Your task to perform on an android device: toggle data saver in the chrome app Image 0: 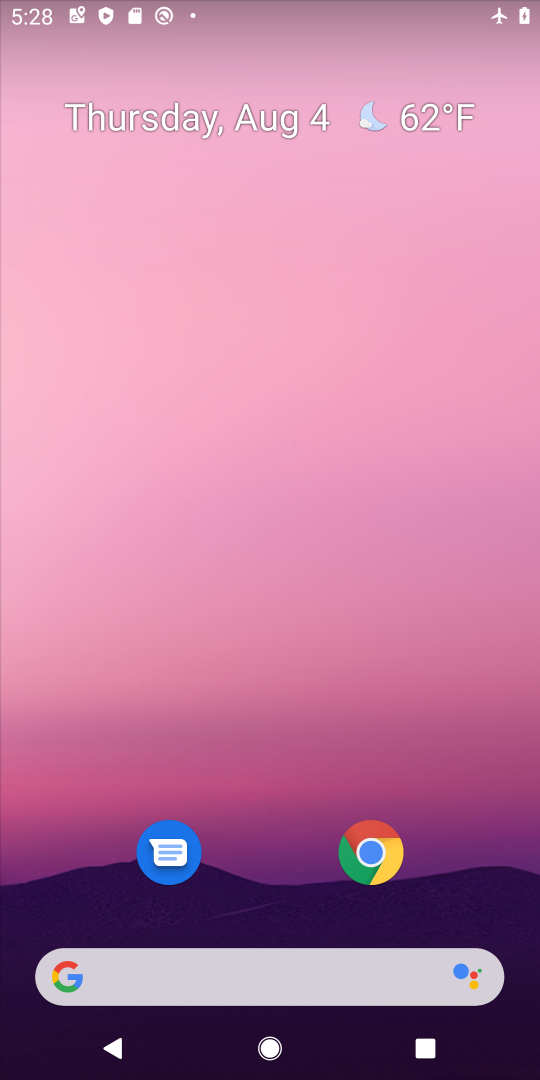
Step 0: click (368, 855)
Your task to perform on an android device: toggle data saver in the chrome app Image 1: 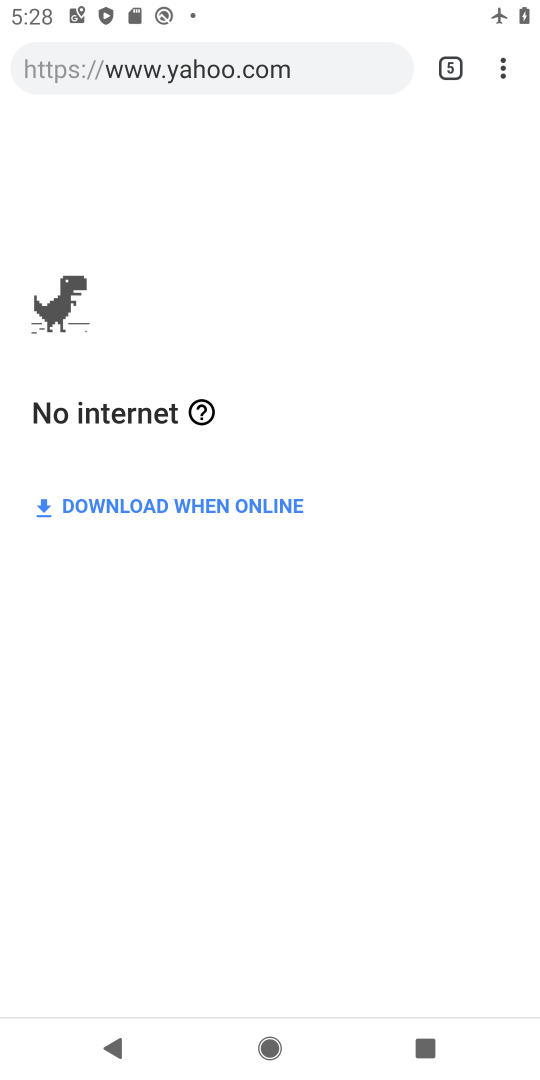
Step 1: click (504, 76)
Your task to perform on an android device: toggle data saver in the chrome app Image 2: 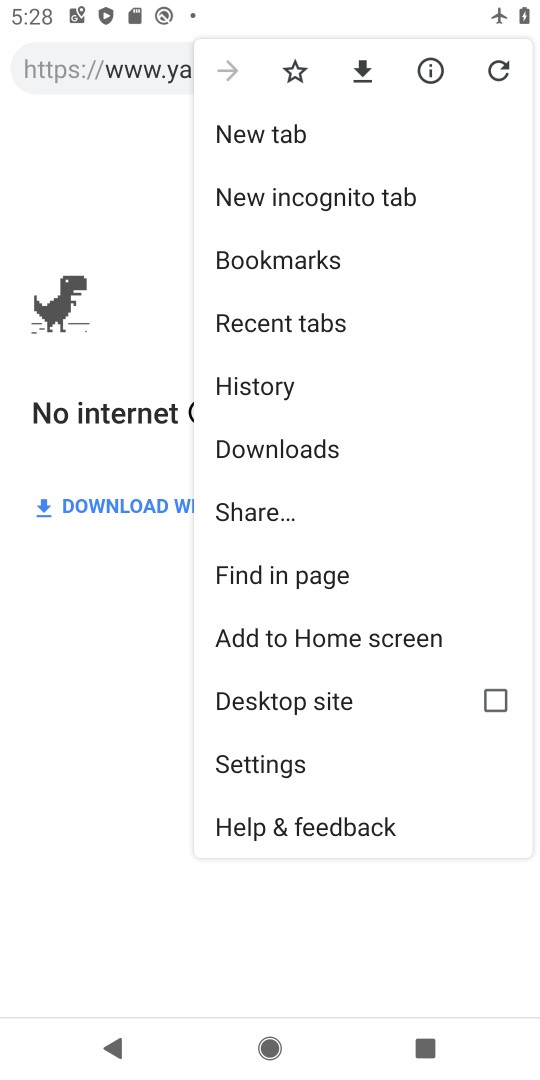
Step 2: click (255, 772)
Your task to perform on an android device: toggle data saver in the chrome app Image 3: 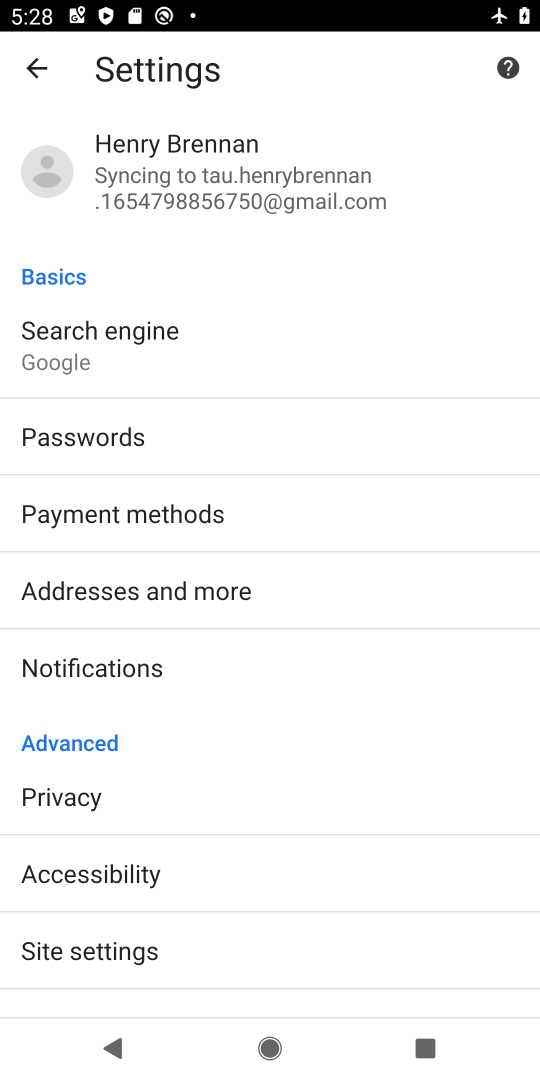
Step 3: drag from (85, 919) to (74, 661)
Your task to perform on an android device: toggle data saver in the chrome app Image 4: 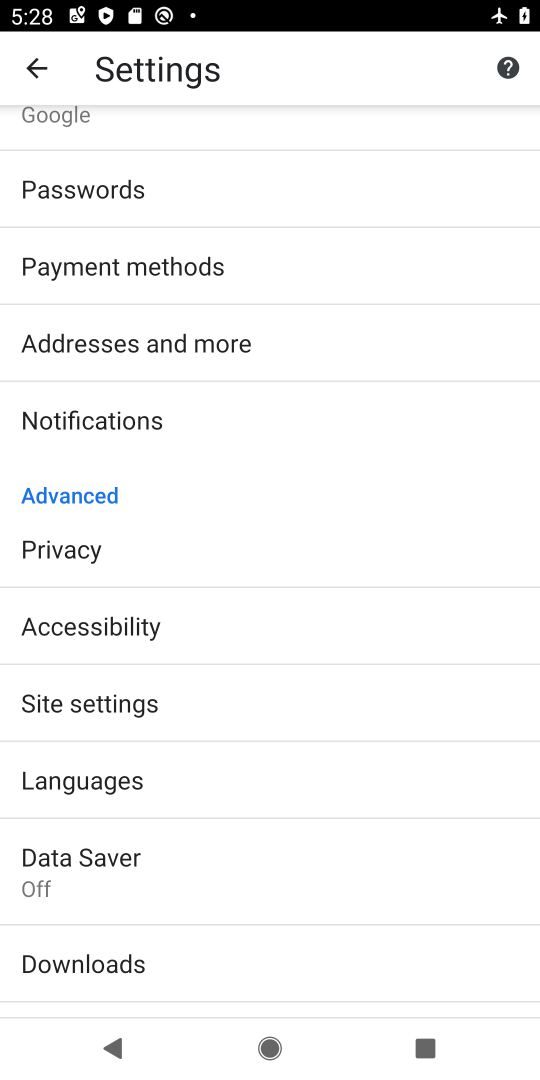
Step 4: click (92, 854)
Your task to perform on an android device: toggle data saver in the chrome app Image 5: 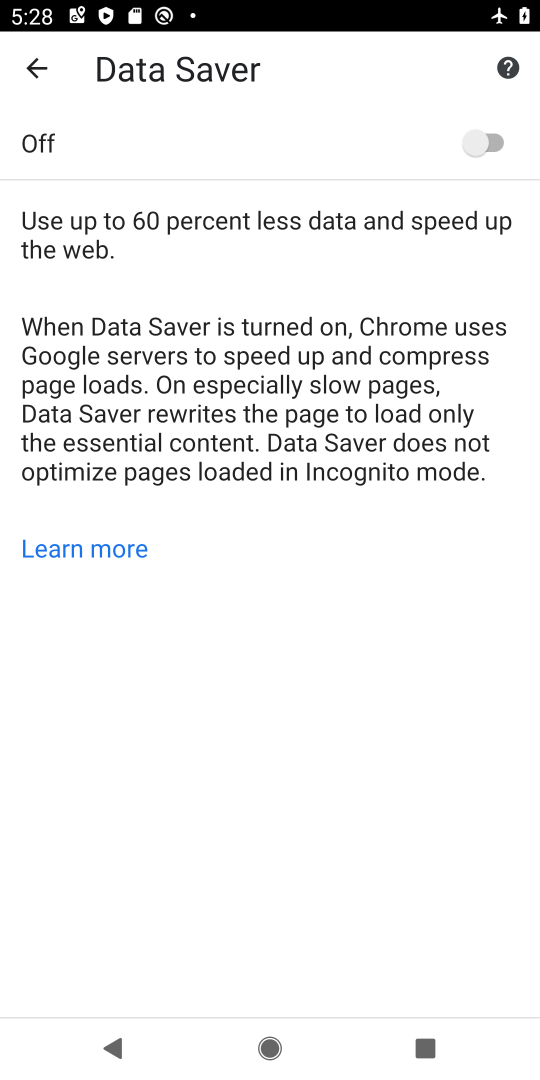
Step 5: click (488, 136)
Your task to perform on an android device: toggle data saver in the chrome app Image 6: 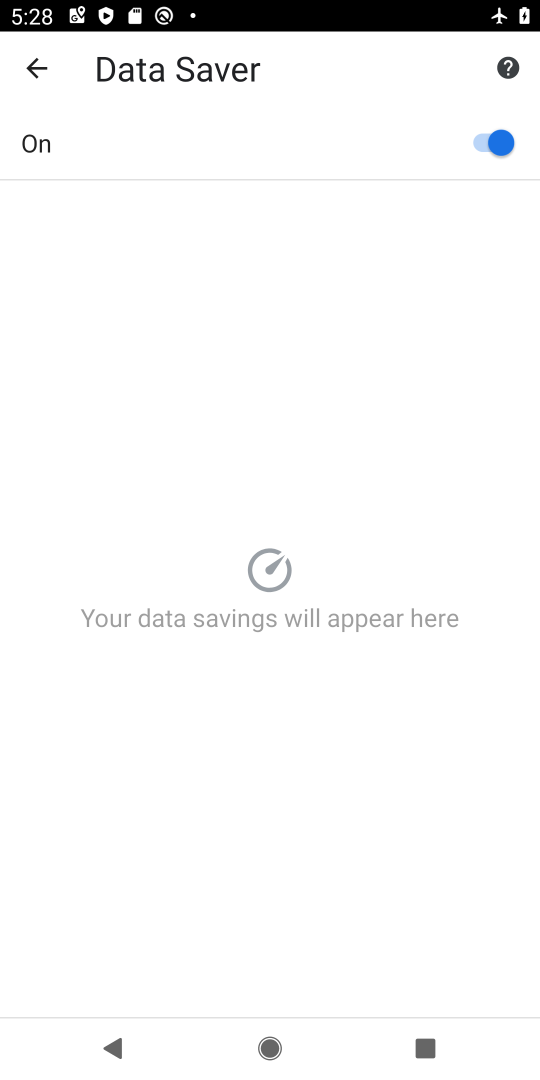
Step 6: task complete